Your task to perform on an android device: toggle notifications settings in the gmail app Image 0: 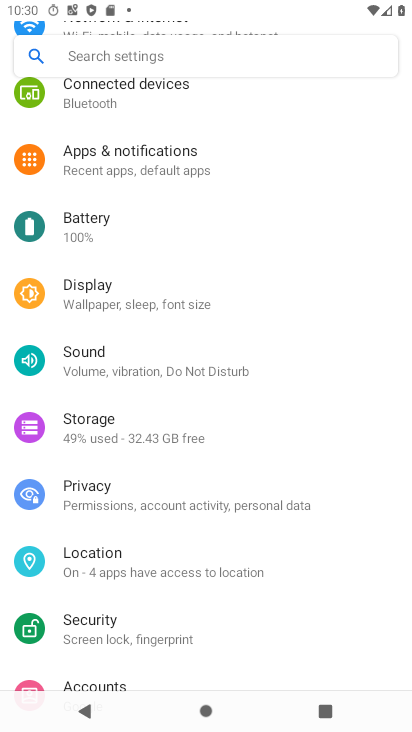
Step 0: click (57, 151)
Your task to perform on an android device: toggle notifications settings in the gmail app Image 1: 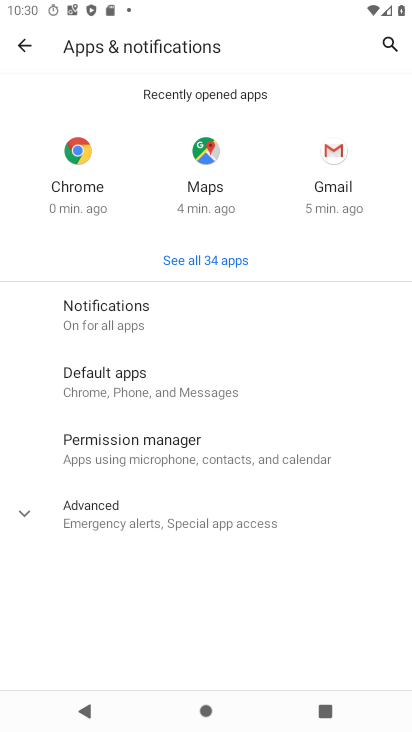
Step 1: click (341, 194)
Your task to perform on an android device: toggle notifications settings in the gmail app Image 2: 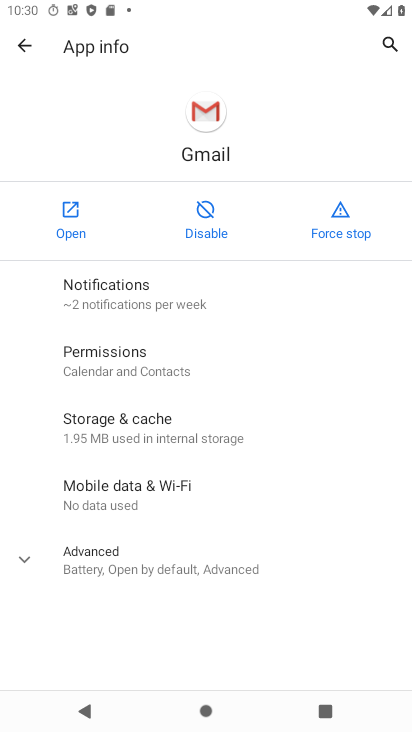
Step 2: click (164, 280)
Your task to perform on an android device: toggle notifications settings in the gmail app Image 3: 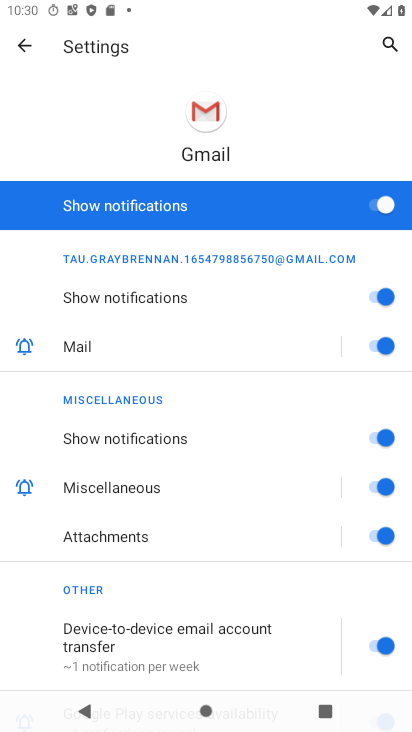
Step 3: click (379, 294)
Your task to perform on an android device: toggle notifications settings in the gmail app Image 4: 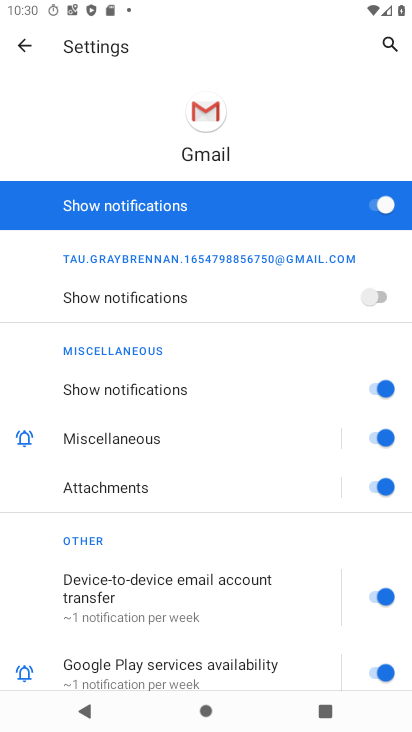
Step 4: click (382, 411)
Your task to perform on an android device: toggle notifications settings in the gmail app Image 5: 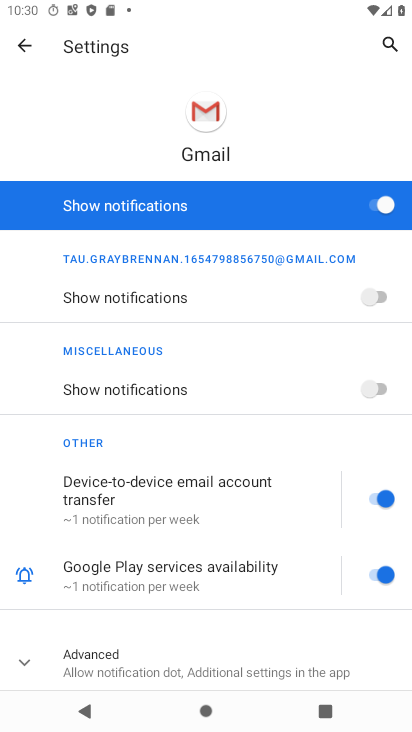
Step 5: click (376, 561)
Your task to perform on an android device: toggle notifications settings in the gmail app Image 6: 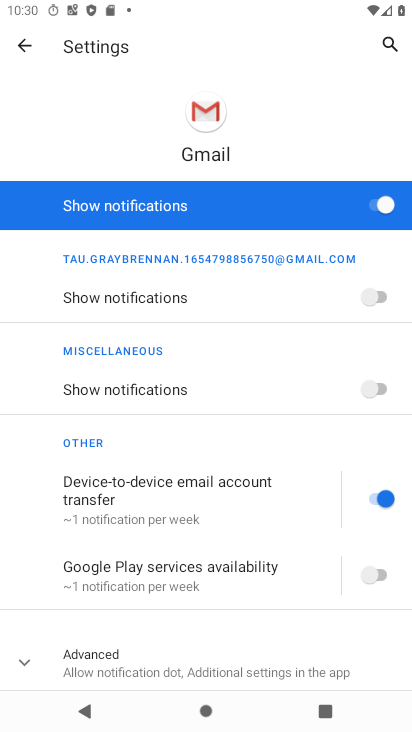
Step 6: task complete